Your task to perform on an android device: Open Google Image 0: 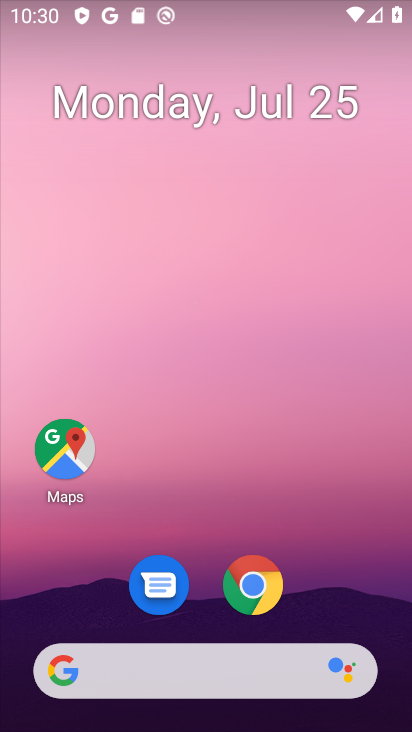
Step 0: drag from (215, 441) to (221, 2)
Your task to perform on an android device: Open Google Image 1: 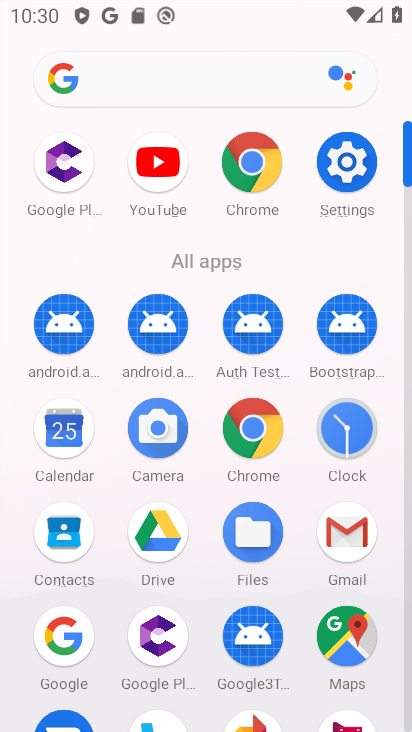
Step 1: drag from (172, 489) to (208, 168)
Your task to perform on an android device: Open Google Image 2: 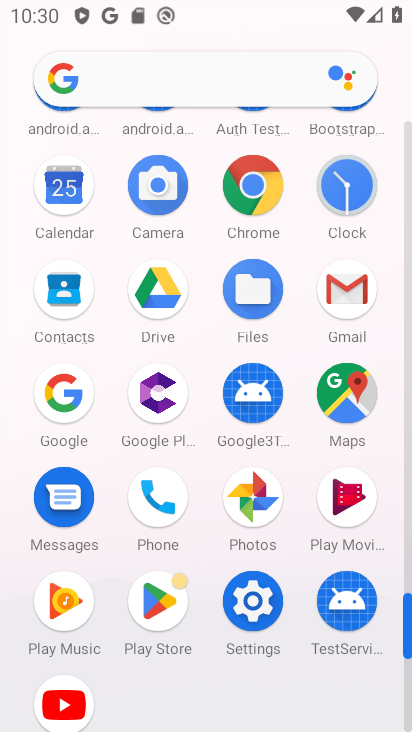
Step 2: click (64, 380)
Your task to perform on an android device: Open Google Image 3: 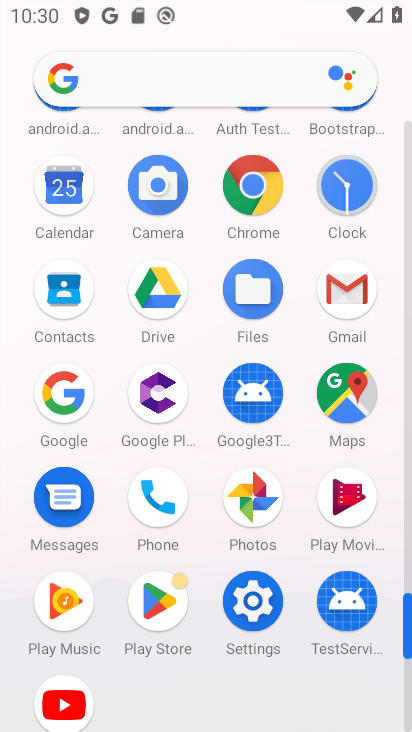
Step 3: click (67, 399)
Your task to perform on an android device: Open Google Image 4: 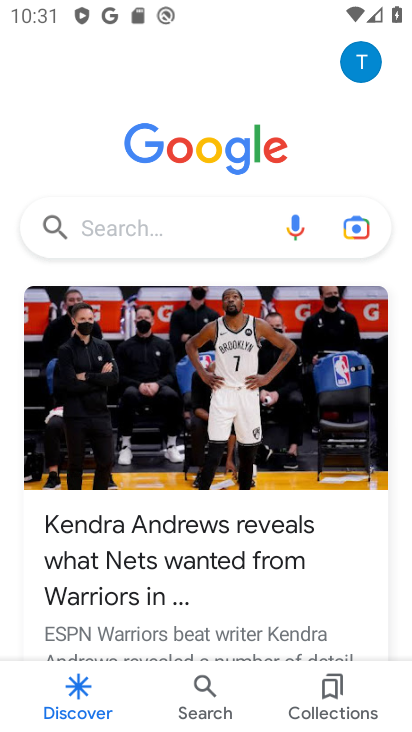
Step 4: task complete